Your task to perform on an android device: Open calendar and show me the first week of next month Image 0: 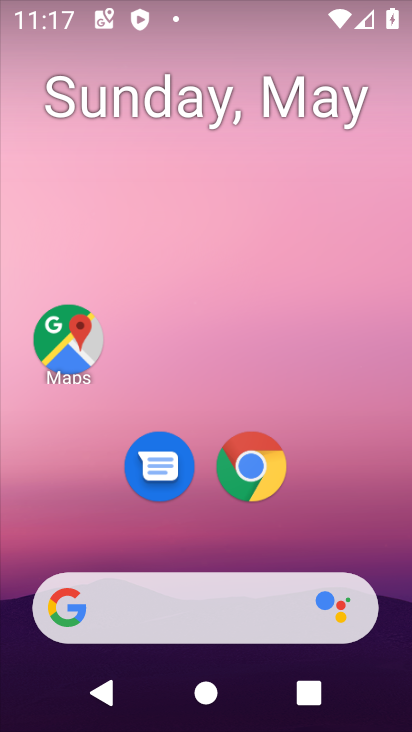
Step 0: drag from (385, 627) to (309, 19)
Your task to perform on an android device: Open calendar and show me the first week of next month Image 1: 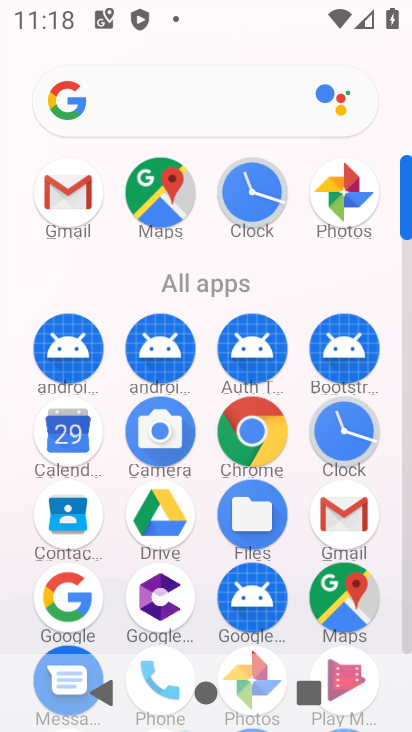
Step 1: click (61, 450)
Your task to perform on an android device: Open calendar and show me the first week of next month Image 2: 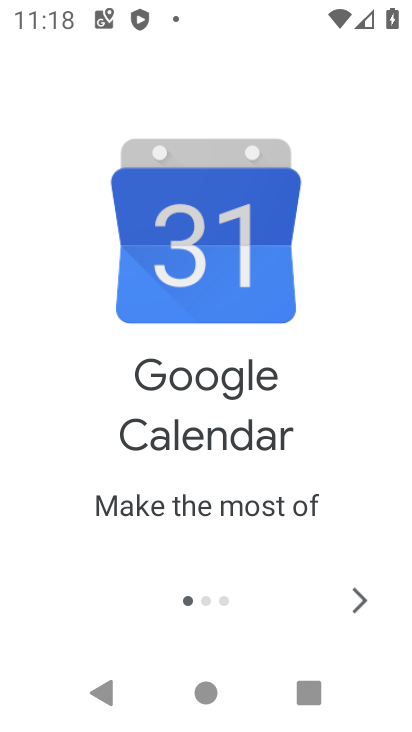
Step 2: click (61, 450)
Your task to perform on an android device: Open calendar and show me the first week of next month Image 3: 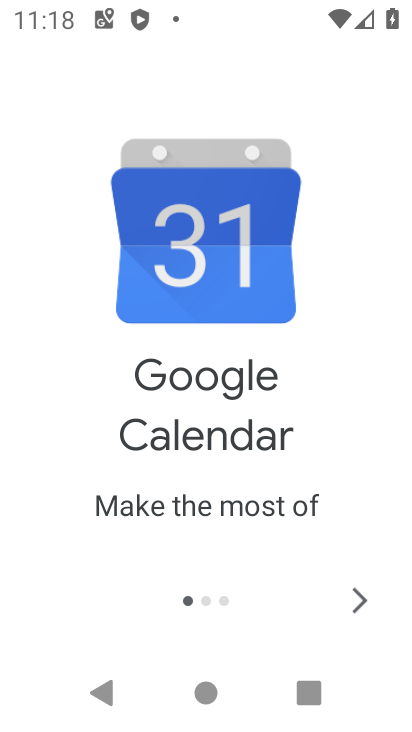
Step 3: click (369, 611)
Your task to perform on an android device: Open calendar and show me the first week of next month Image 4: 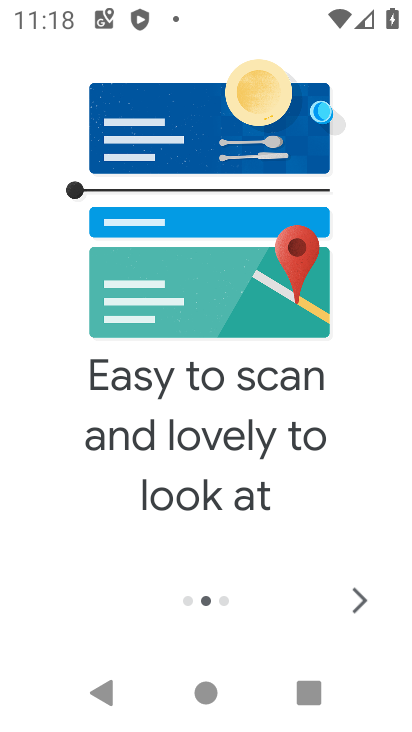
Step 4: click (369, 611)
Your task to perform on an android device: Open calendar and show me the first week of next month Image 5: 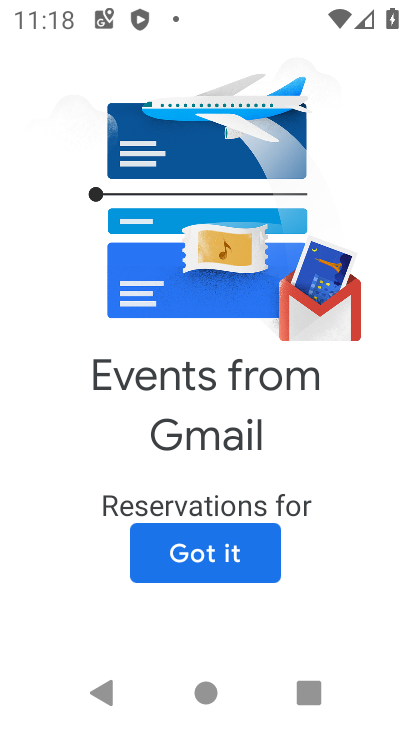
Step 5: click (177, 568)
Your task to perform on an android device: Open calendar and show me the first week of next month Image 6: 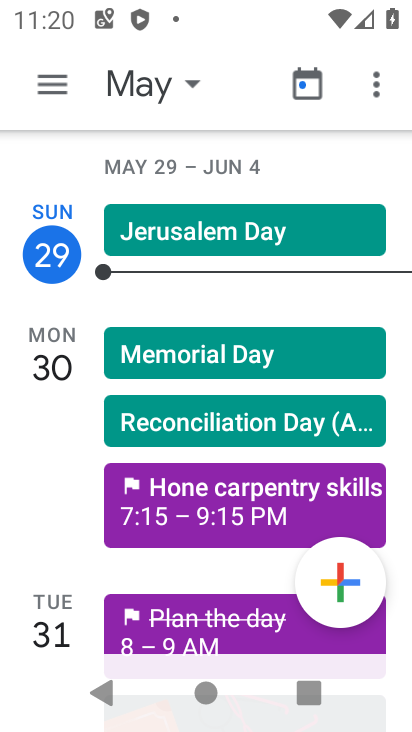
Step 6: click (144, 88)
Your task to perform on an android device: Open calendar and show me the first week of next month Image 7: 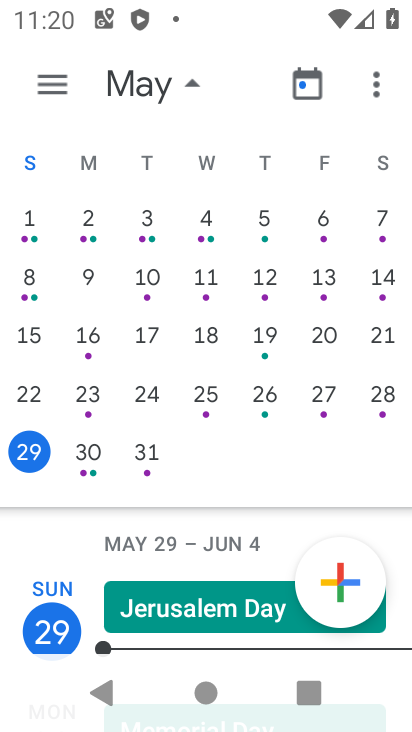
Step 7: drag from (374, 285) to (72, 320)
Your task to perform on an android device: Open calendar and show me the first week of next month Image 8: 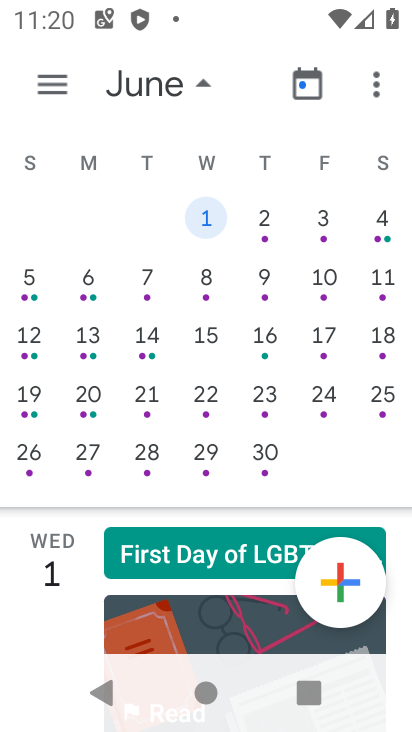
Step 8: click (35, 274)
Your task to perform on an android device: Open calendar and show me the first week of next month Image 9: 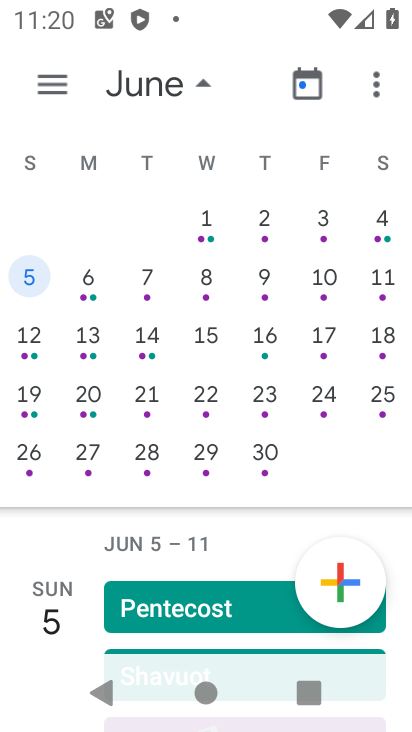
Step 9: task complete